Your task to perform on an android device: choose inbox layout in the gmail app Image 0: 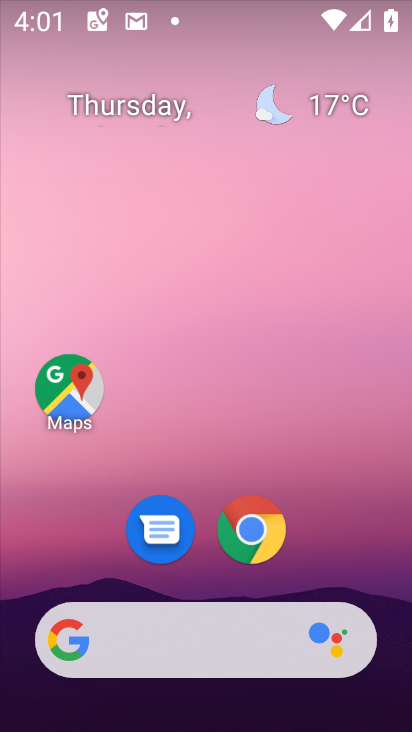
Step 0: drag from (235, 550) to (225, 90)
Your task to perform on an android device: choose inbox layout in the gmail app Image 1: 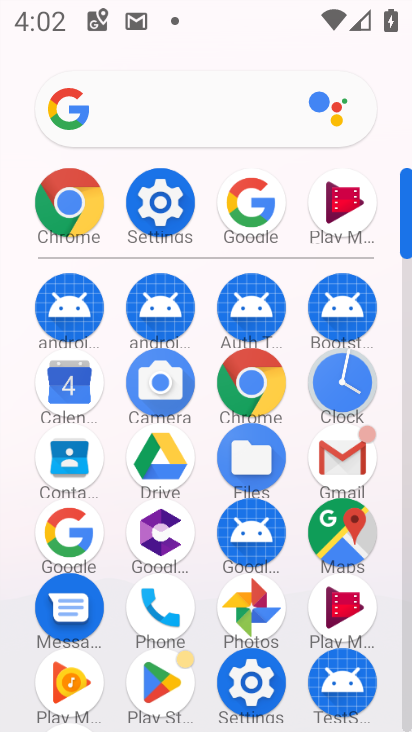
Step 1: click (340, 453)
Your task to perform on an android device: choose inbox layout in the gmail app Image 2: 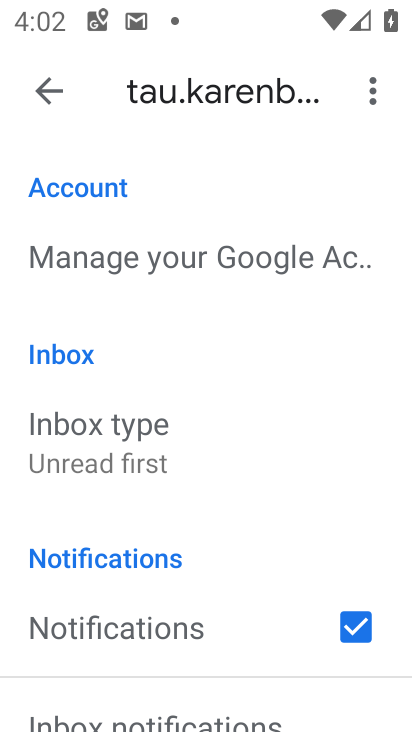
Step 2: click (128, 450)
Your task to perform on an android device: choose inbox layout in the gmail app Image 3: 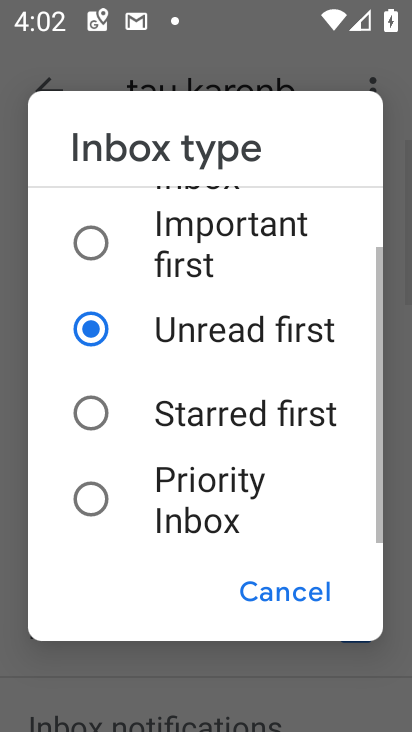
Step 3: click (166, 511)
Your task to perform on an android device: choose inbox layout in the gmail app Image 4: 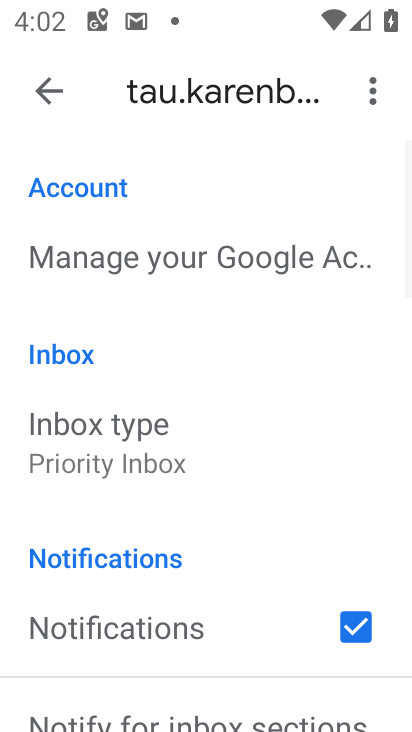
Step 4: task complete